Your task to perform on an android device: turn off wifi Image 0: 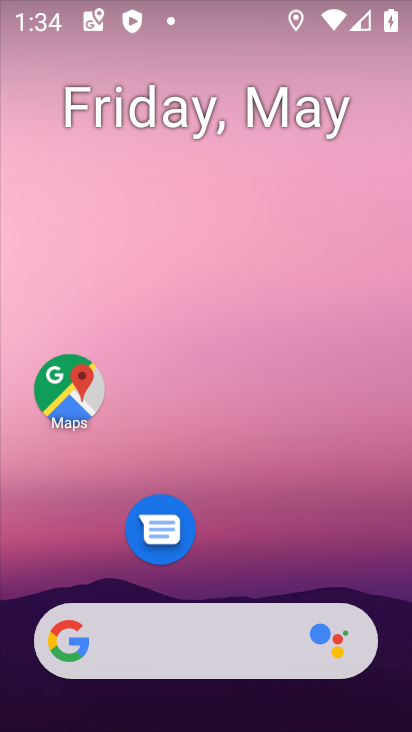
Step 0: click (314, 172)
Your task to perform on an android device: turn off wifi Image 1: 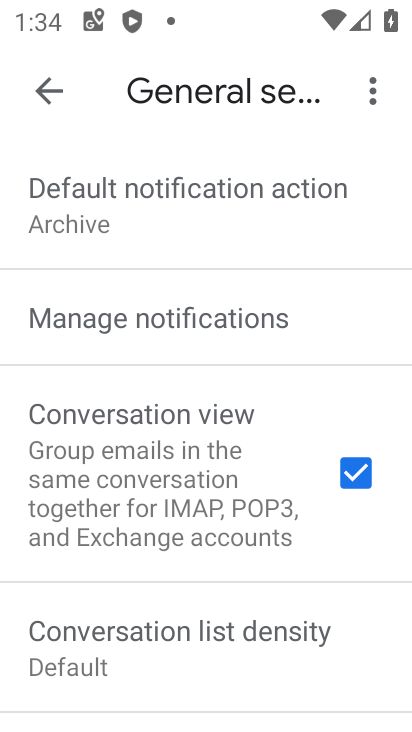
Step 1: press home button
Your task to perform on an android device: turn off wifi Image 2: 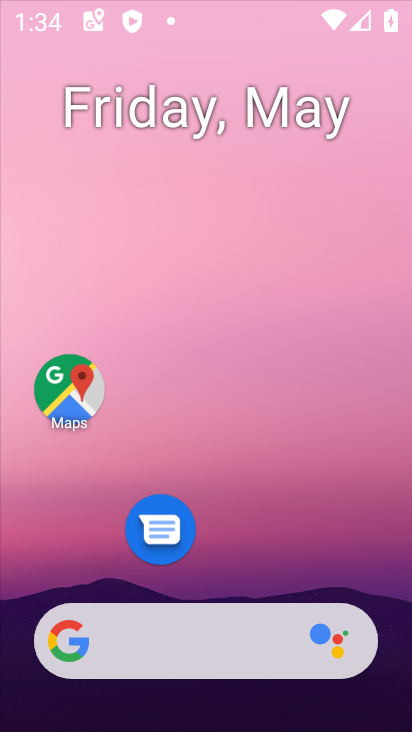
Step 2: drag from (208, 478) to (294, 88)
Your task to perform on an android device: turn off wifi Image 3: 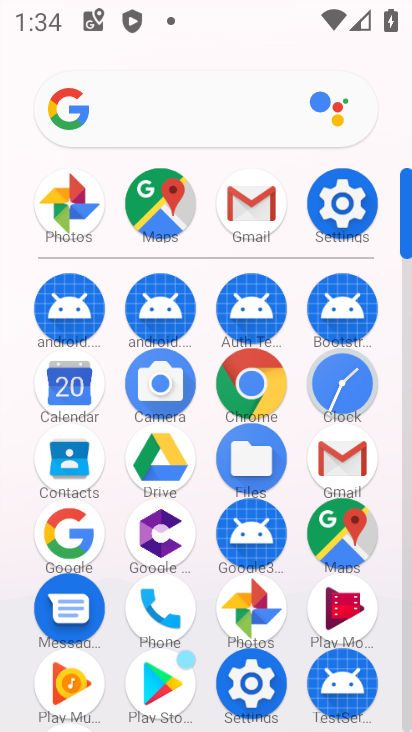
Step 3: click (352, 194)
Your task to perform on an android device: turn off wifi Image 4: 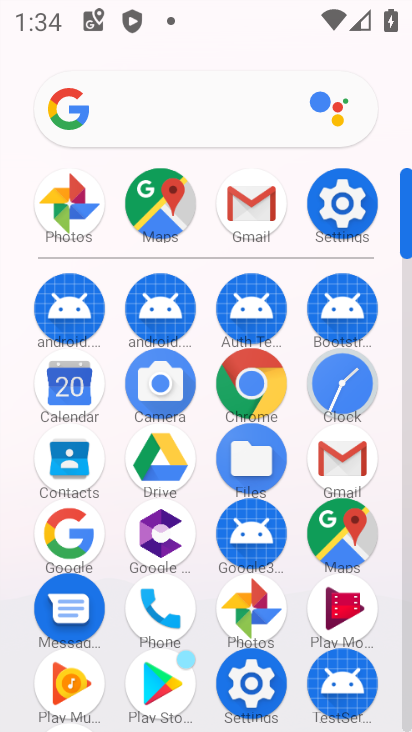
Step 4: click (352, 194)
Your task to perform on an android device: turn off wifi Image 5: 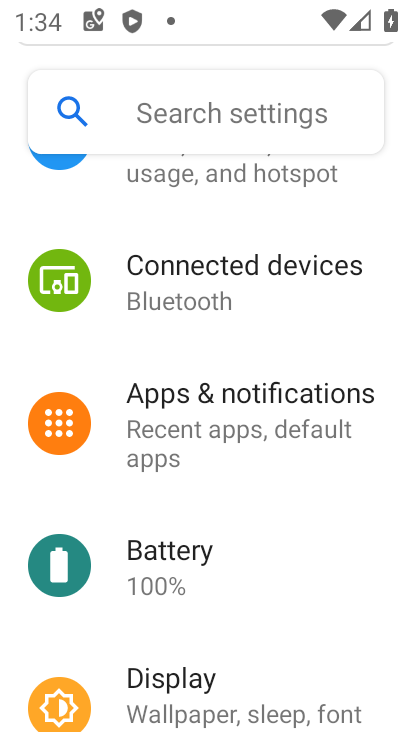
Step 5: drag from (196, 266) to (208, 731)
Your task to perform on an android device: turn off wifi Image 6: 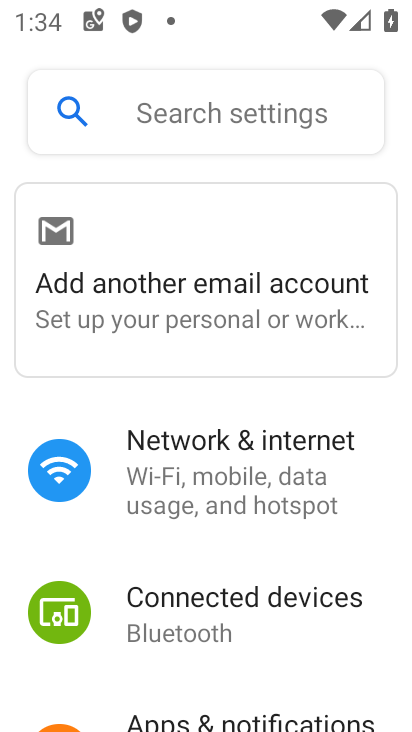
Step 6: click (184, 467)
Your task to perform on an android device: turn off wifi Image 7: 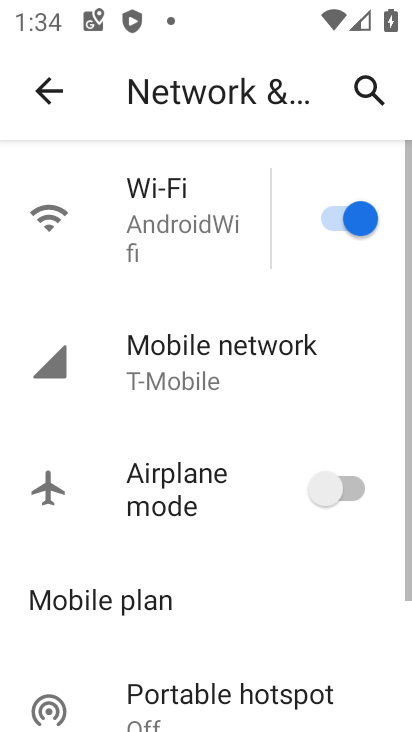
Step 7: click (339, 212)
Your task to perform on an android device: turn off wifi Image 8: 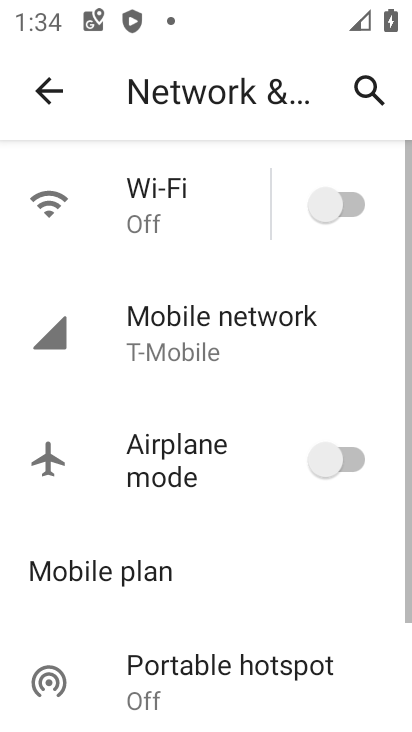
Step 8: task complete